Your task to perform on an android device: Open my contact list Image 0: 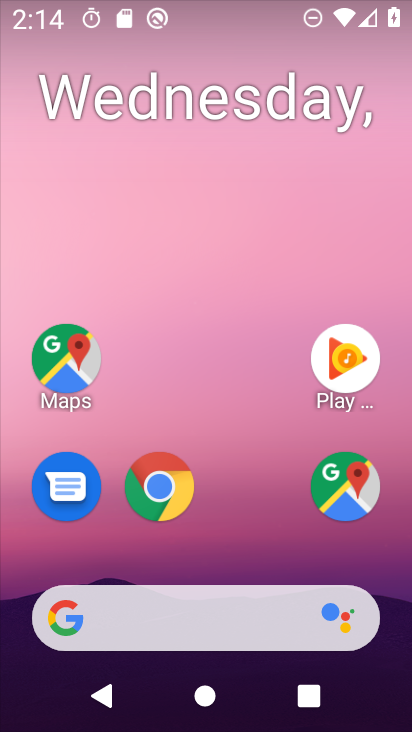
Step 0: press home button
Your task to perform on an android device: Open my contact list Image 1: 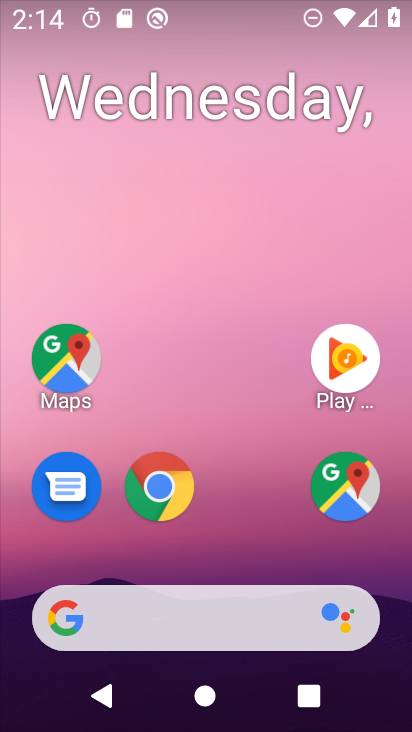
Step 1: drag from (241, 550) to (256, 142)
Your task to perform on an android device: Open my contact list Image 2: 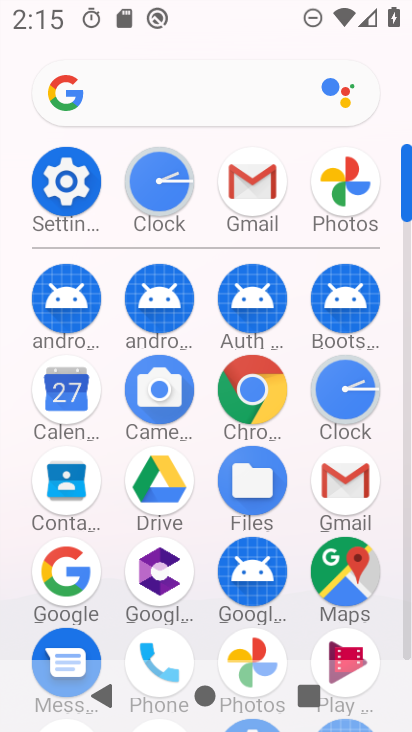
Step 2: click (57, 497)
Your task to perform on an android device: Open my contact list Image 3: 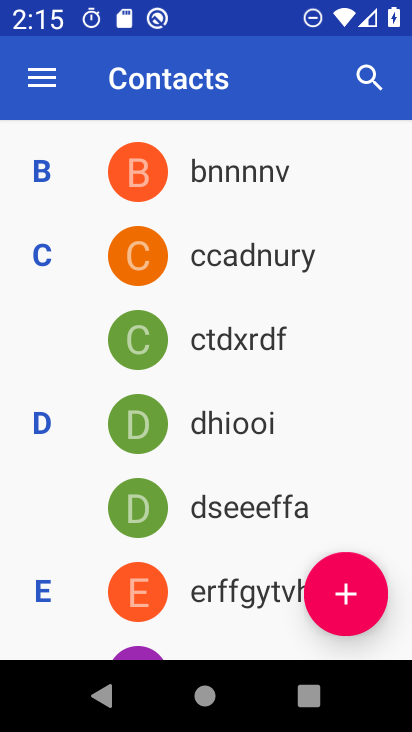
Step 3: click (352, 592)
Your task to perform on an android device: Open my contact list Image 4: 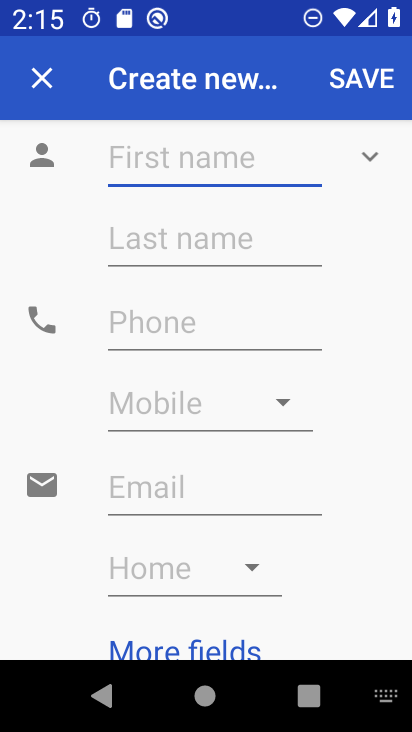
Step 4: type "gg"
Your task to perform on an android device: Open my contact list Image 5: 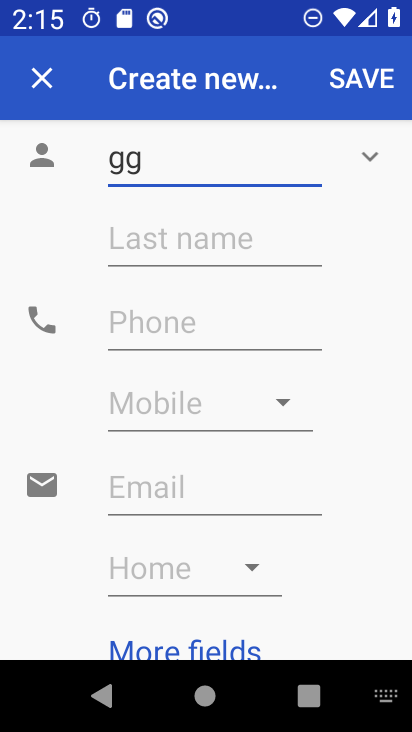
Step 5: click (263, 325)
Your task to perform on an android device: Open my contact list Image 6: 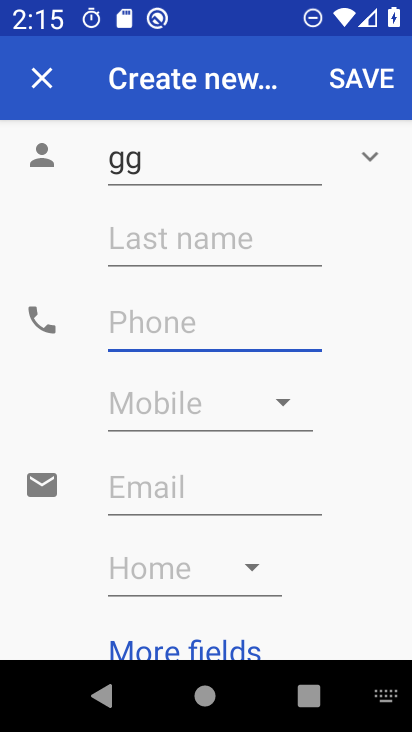
Step 6: type "123345667"
Your task to perform on an android device: Open my contact list Image 7: 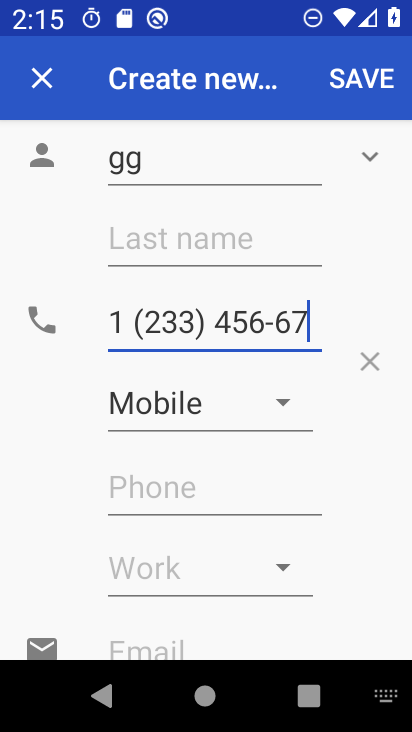
Step 7: click (353, 72)
Your task to perform on an android device: Open my contact list Image 8: 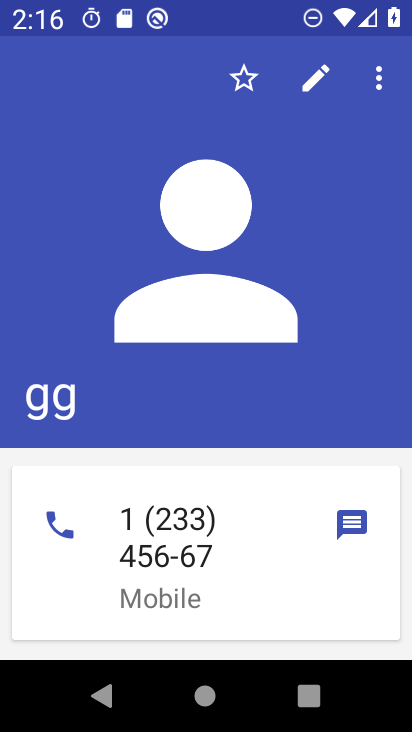
Step 8: task complete